Your task to perform on an android device: turn on translation in the chrome app Image 0: 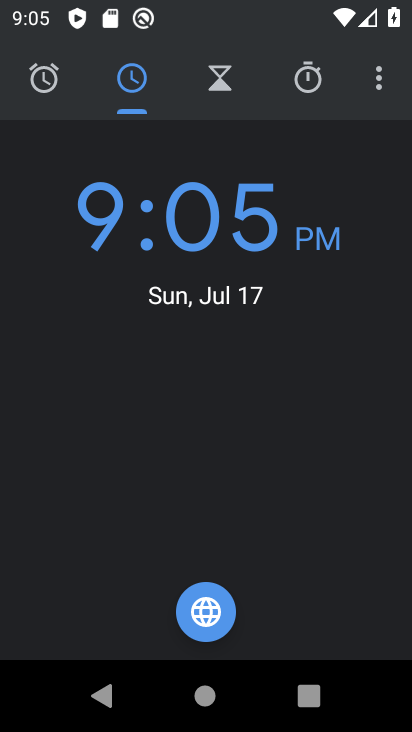
Step 0: press home button
Your task to perform on an android device: turn on translation in the chrome app Image 1: 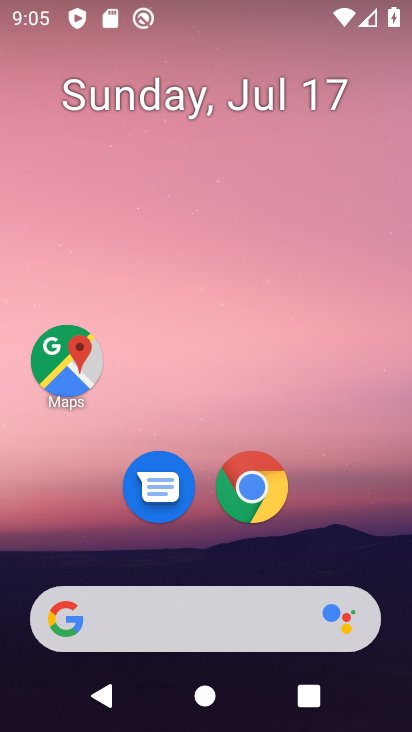
Step 1: click (252, 481)
Your task to perform on an android device: turn on translation in the chrome app Image 2: 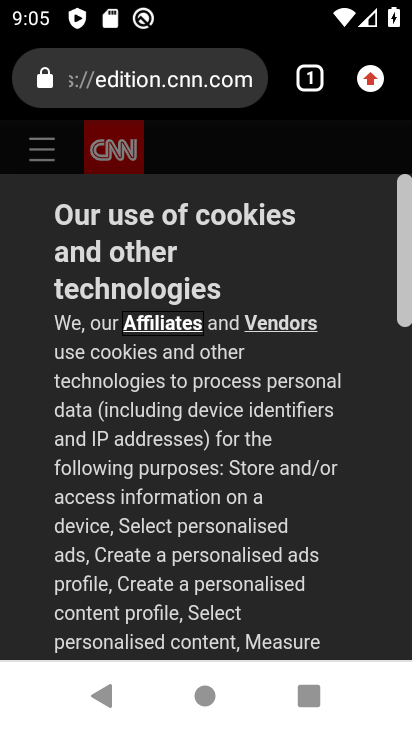
Step 2: click (383, 70)
Your task to perform on an android device: turn on translation in the chrome app Image 3: 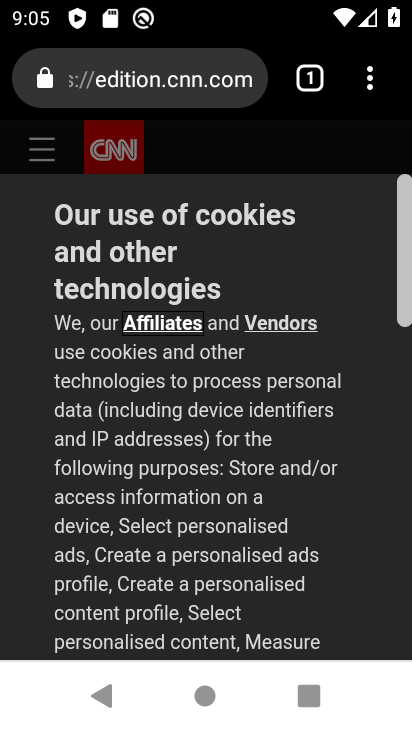
Step 3: click (375, 74)
Your task to perform on an android device: turn on translation in the chrome app Image 4: 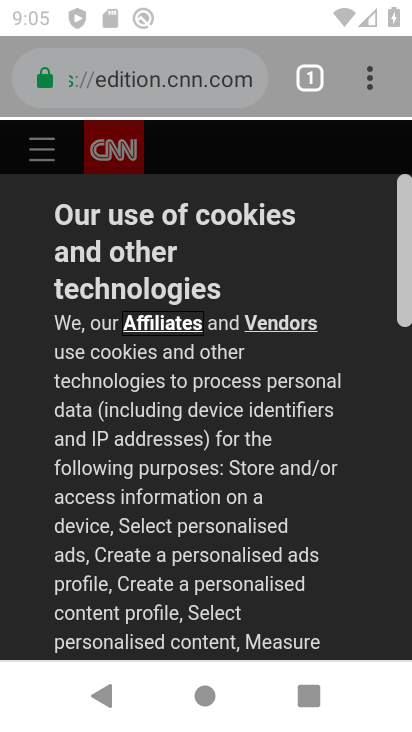
Step 4: drag from (372, 78) to (118, 519)
Your task to perform on an android device: turn on translation in the chrome app Image 5: 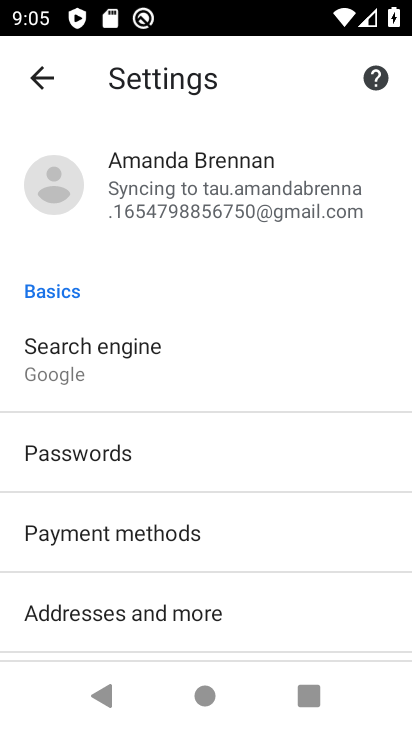
Step 5: drag from (319, 643) to (295, 152)
Your task to perform on an android device: turn on translation in the chrome app Image 6: 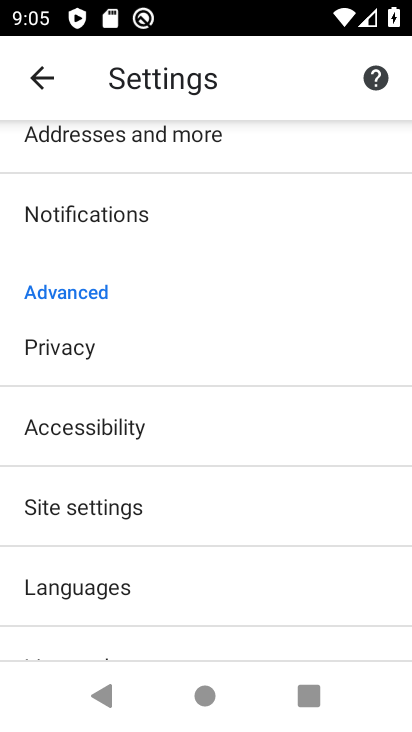
Step 6: click (67, 584)
Your task to perform on an android device: turn on translation in the chrome app Image 7: 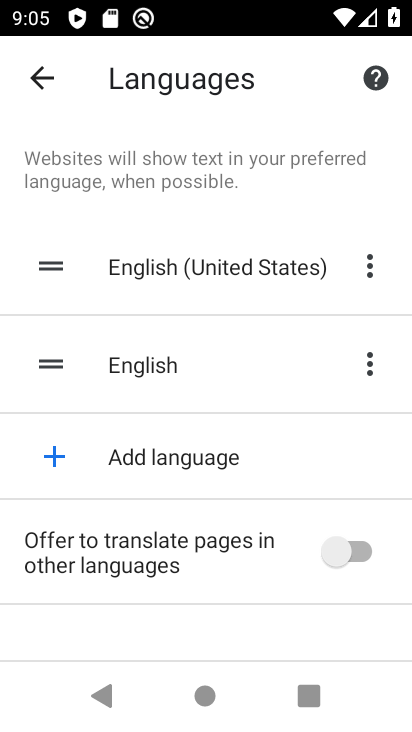
Step 7: click (355, 552)
Your task to perform on an android device: turn on translation in the chrome app Image 8: 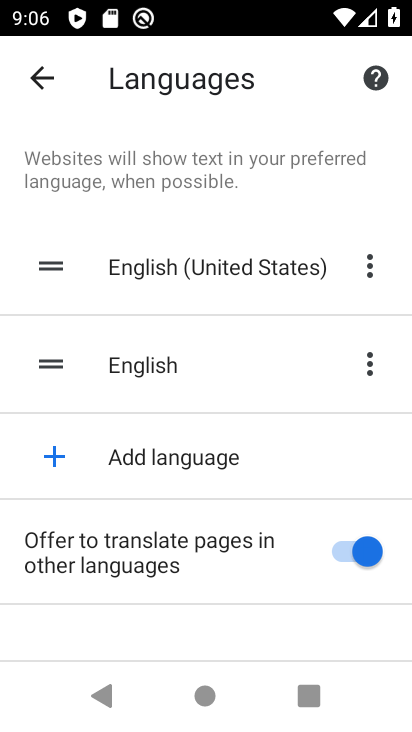
Step 8: task complete